Your task to perform on an android device: Open internet settings Image 0: 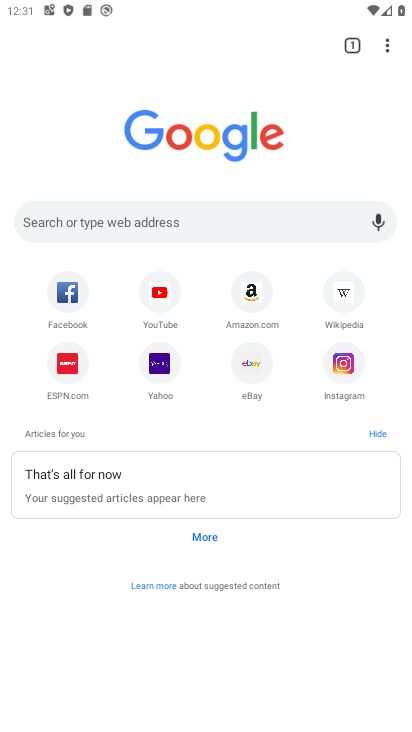
Step 0: press home button
Your task to perform on an android device: Open internet settings Image 1: 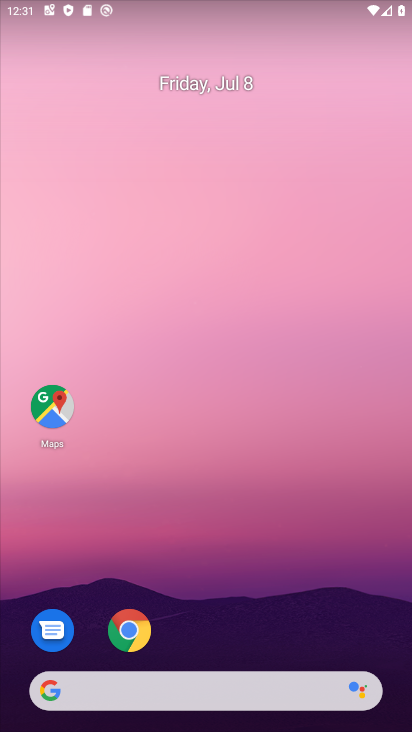
Step 1: drag from (381, 636) to (308, 194)
Your task to perform on an android device: Open internet settings Image 2: 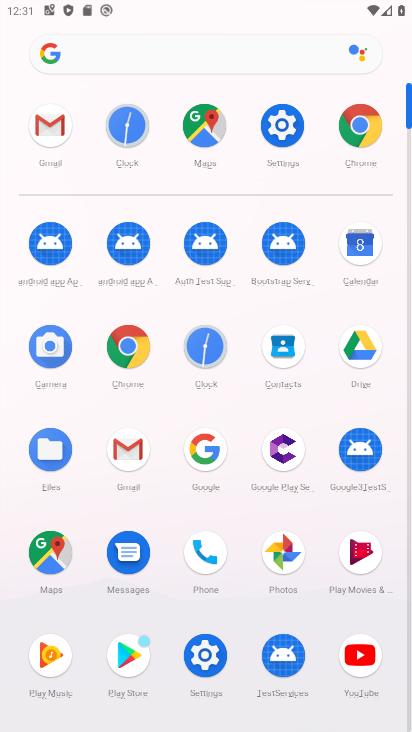
Step 2: click (278, 124)
Your task to perform on an android device: Open internet settings Image 3: 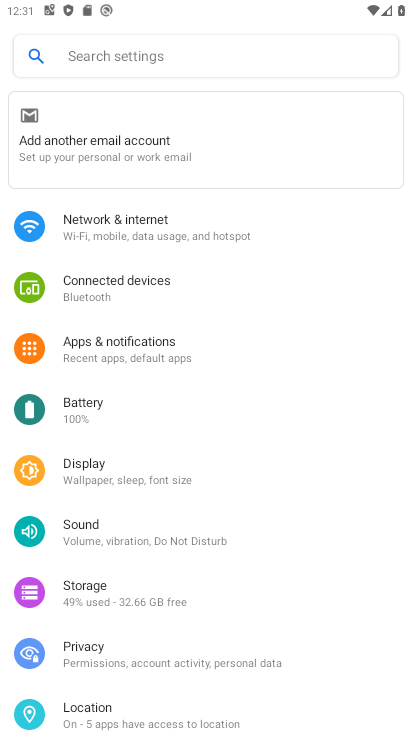
Step 3: click (177, 249)
Your task to perform on an android device: Open internet settings Image 4: 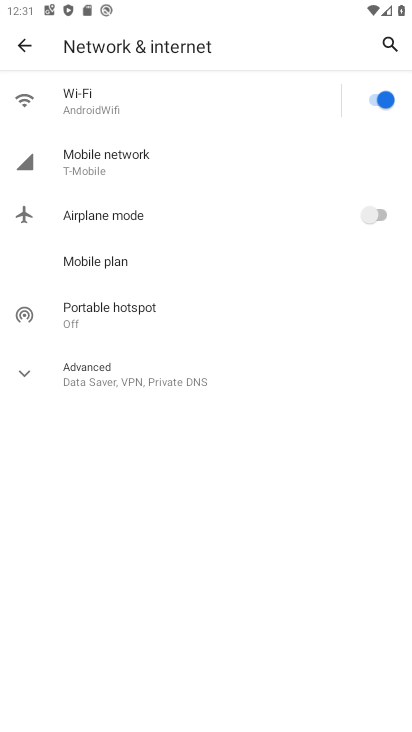
Step 4: task complete